Your task to perform on an android device: Open the Play Movies app and select the watchlist tab. Image 0: 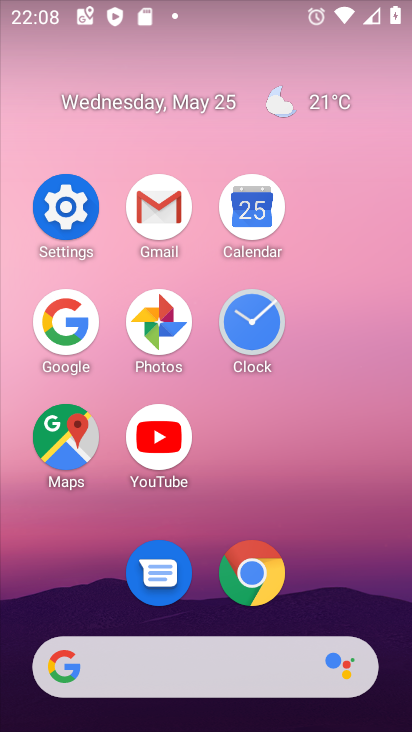
Step 0: drag from (362, 580) to (330, 119)
Your task to perform on an android device: Open the Play Movies app and select the watchlist tab. Image 1: 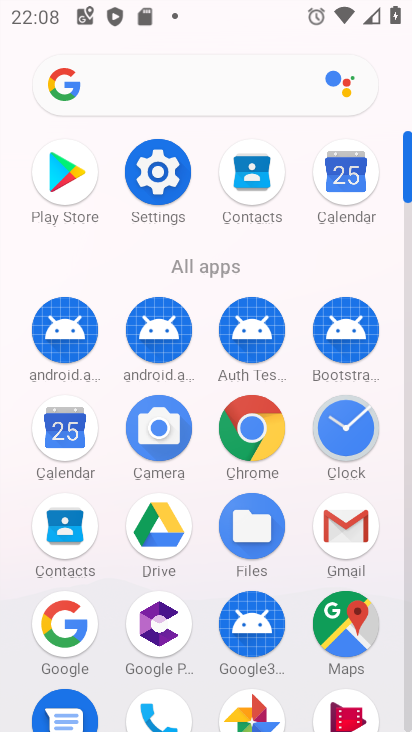
Step 1: drag from (293, 584) to (298, 166)
Your task to perform on an android device: Open the Play Movies app and select the watchlist tab. Image 2: 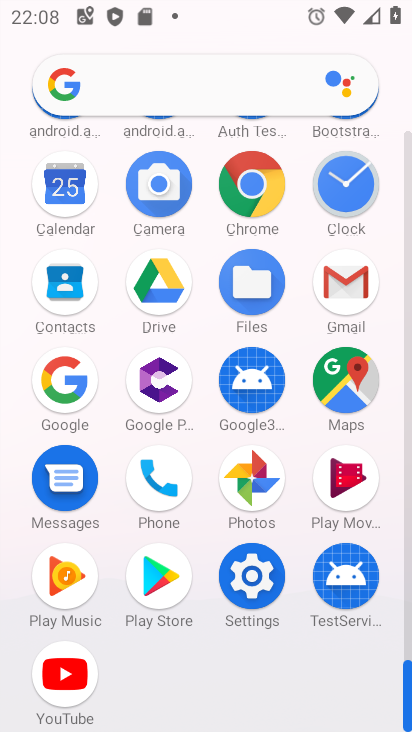
Step 2: click (339, 481)
Your task to perform on an android device: Open the Play Movies app and select the watchlist tab. Image 3: 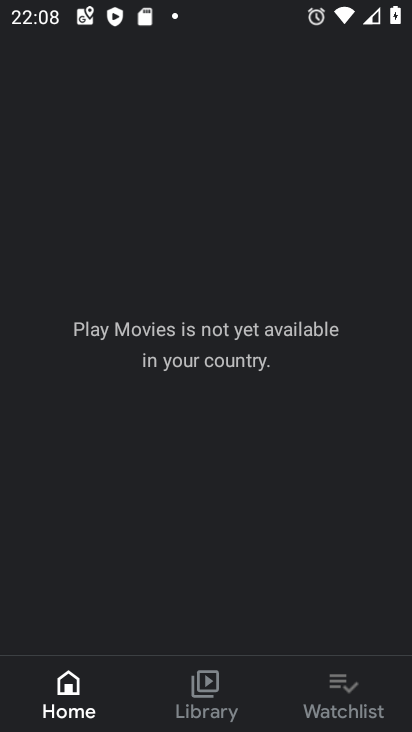
Step 3: click (336, 700)
Your task to perform on an android device: Open the Play Movies app and select the watchlist tab. Image 4: 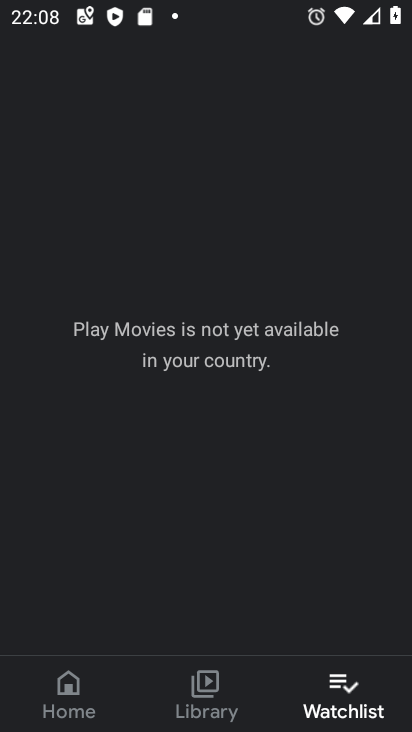
Step 4: task complete